Your task to perform on an android device: open app "Calculator" Image 0: 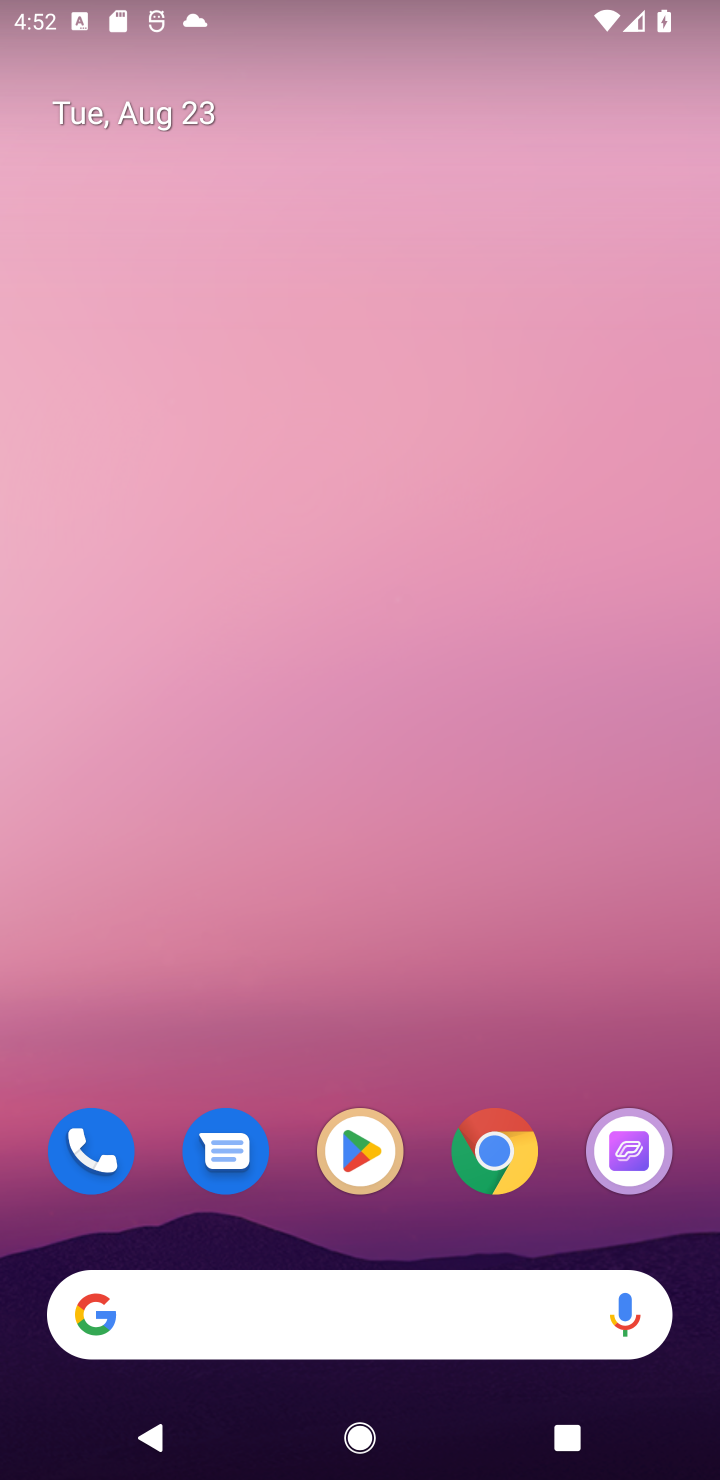
Step 0: press home button
Your task to perform on an android device: open app "Calculator" Image 1: 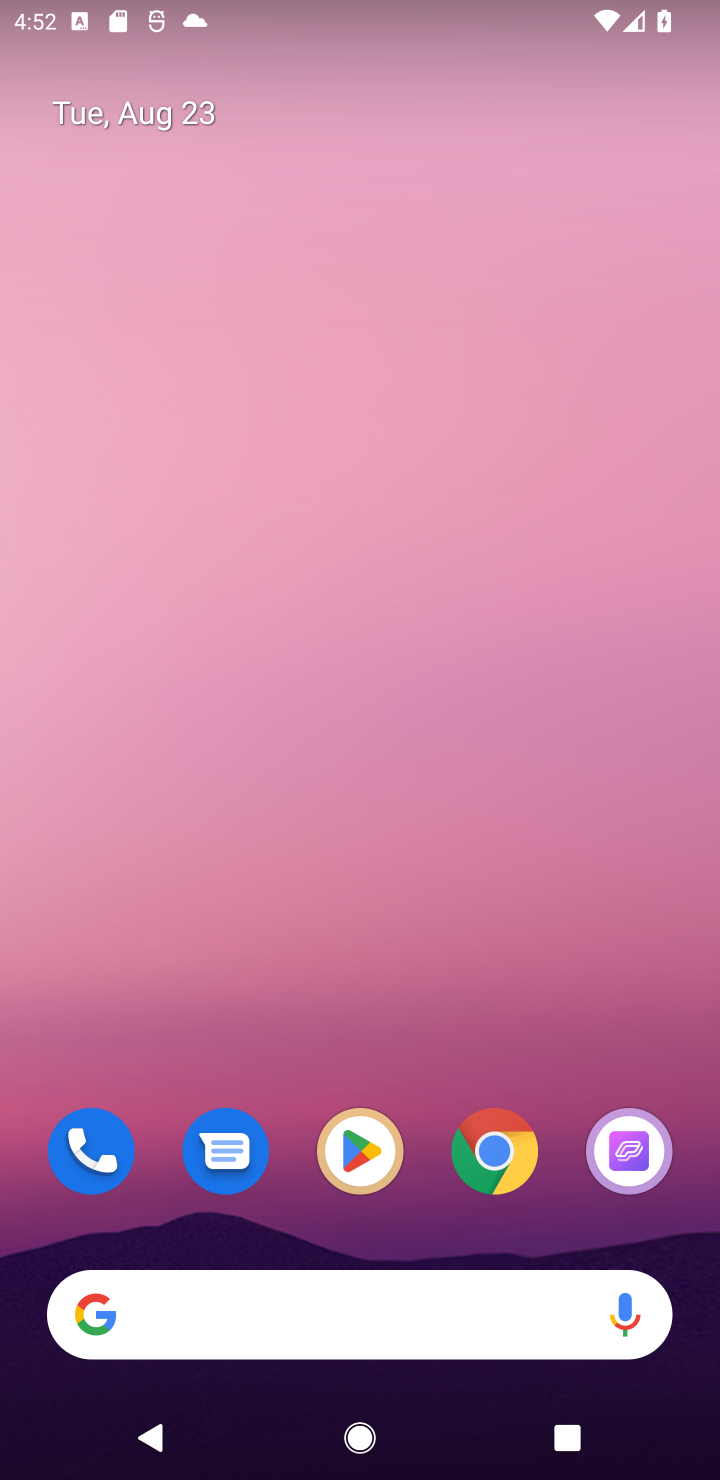
Step 1: click (355, 1153)
Your task to perform on an android device: open app "Calculator" Image 2: 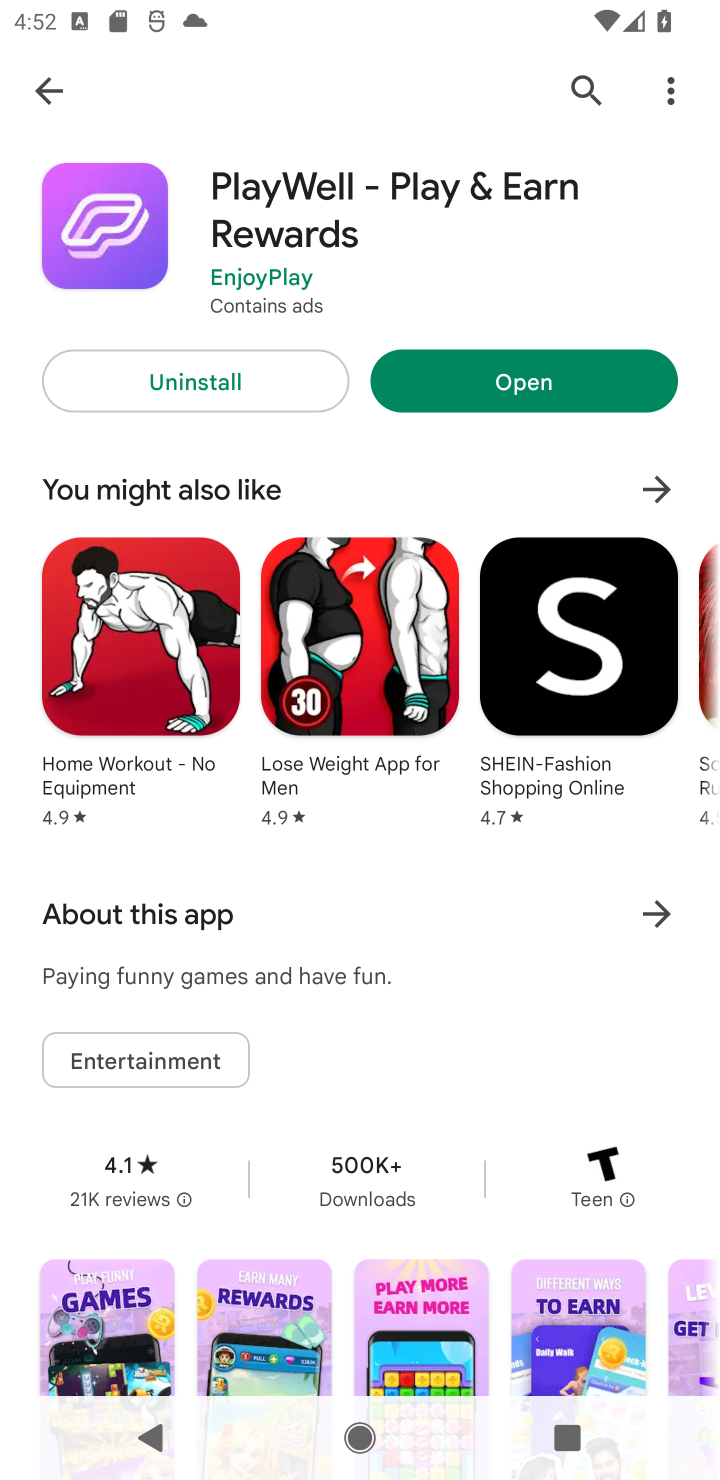
Step 2: click (589, 78)
Your task to perform on an android device: open app "Calculator" Image 3: 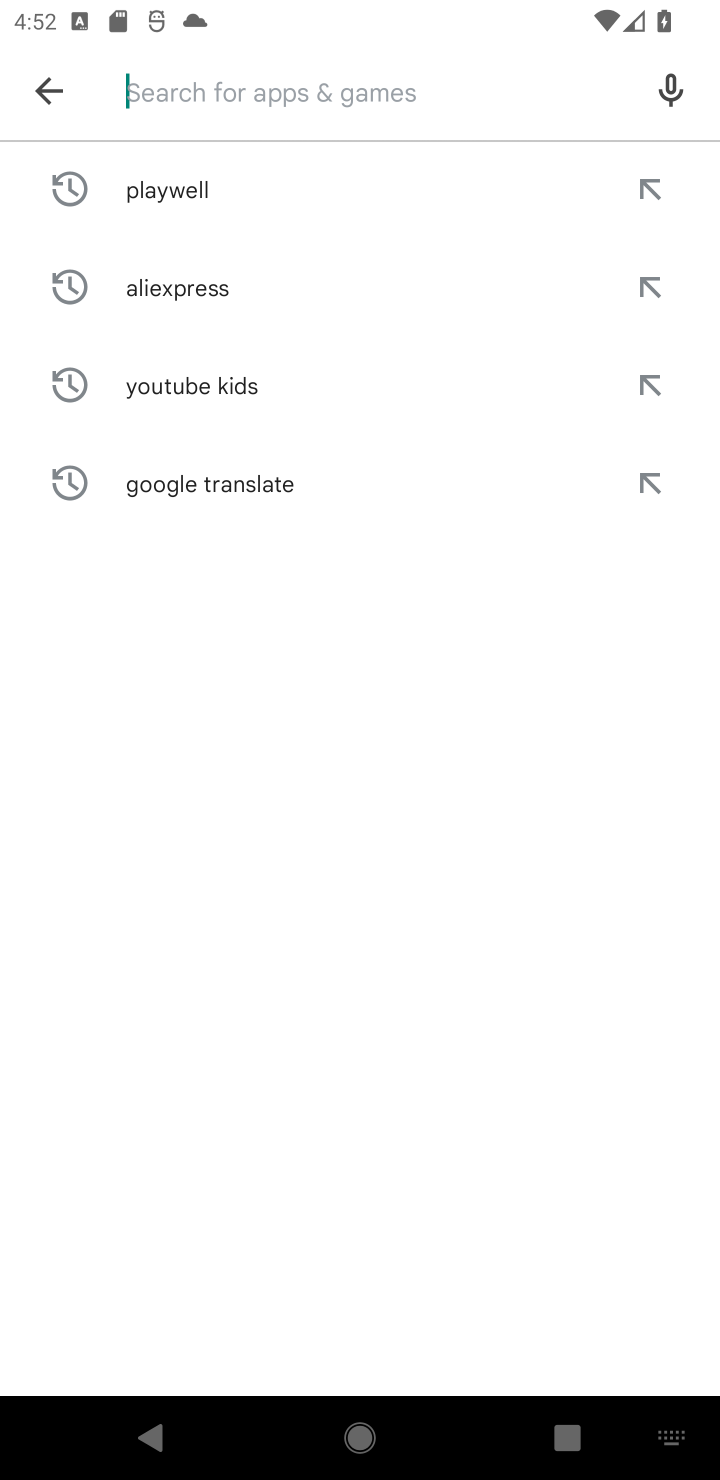
Step 3: type "Calculator"
Your task to perform on an android device: open app "Calculator" Image 4: 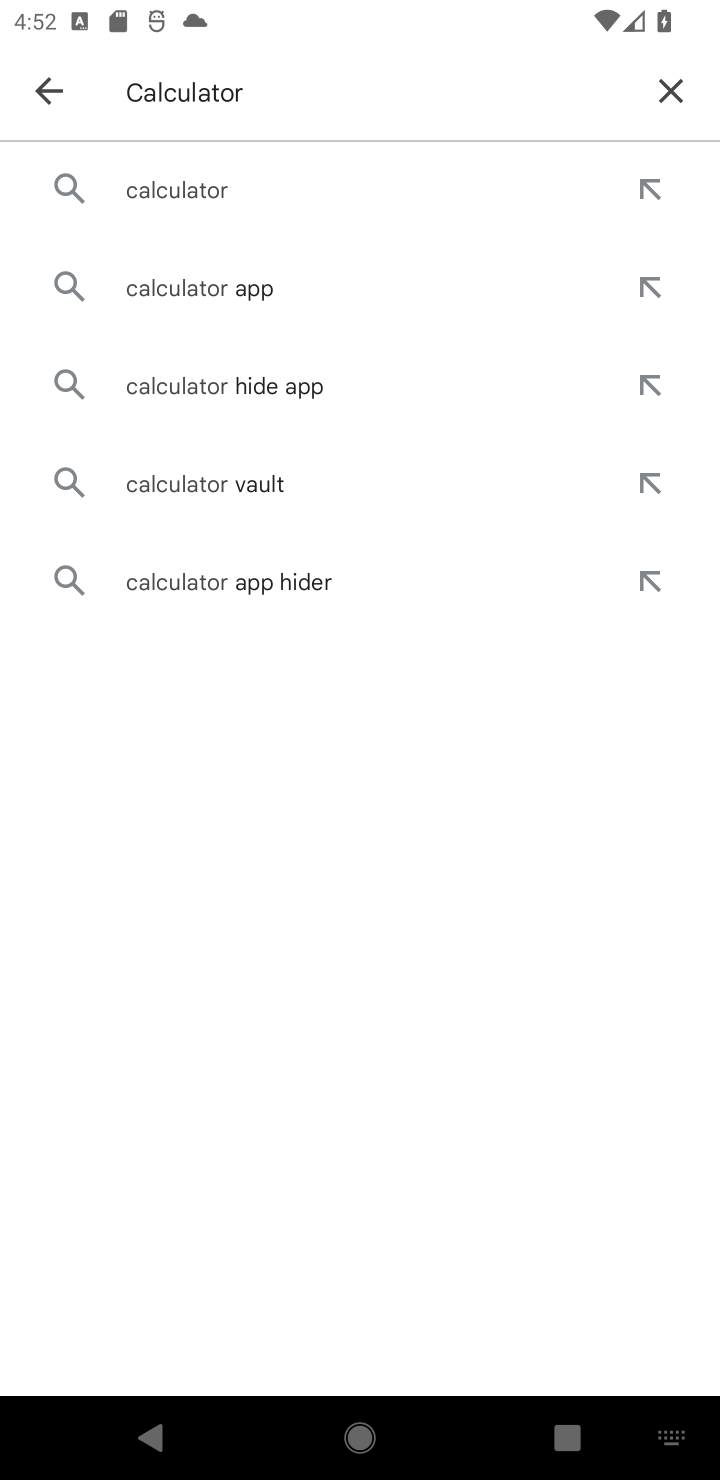
Step 4: click (175, 187)
Your task to perform on an android device: open app "Calculator" Image 5: 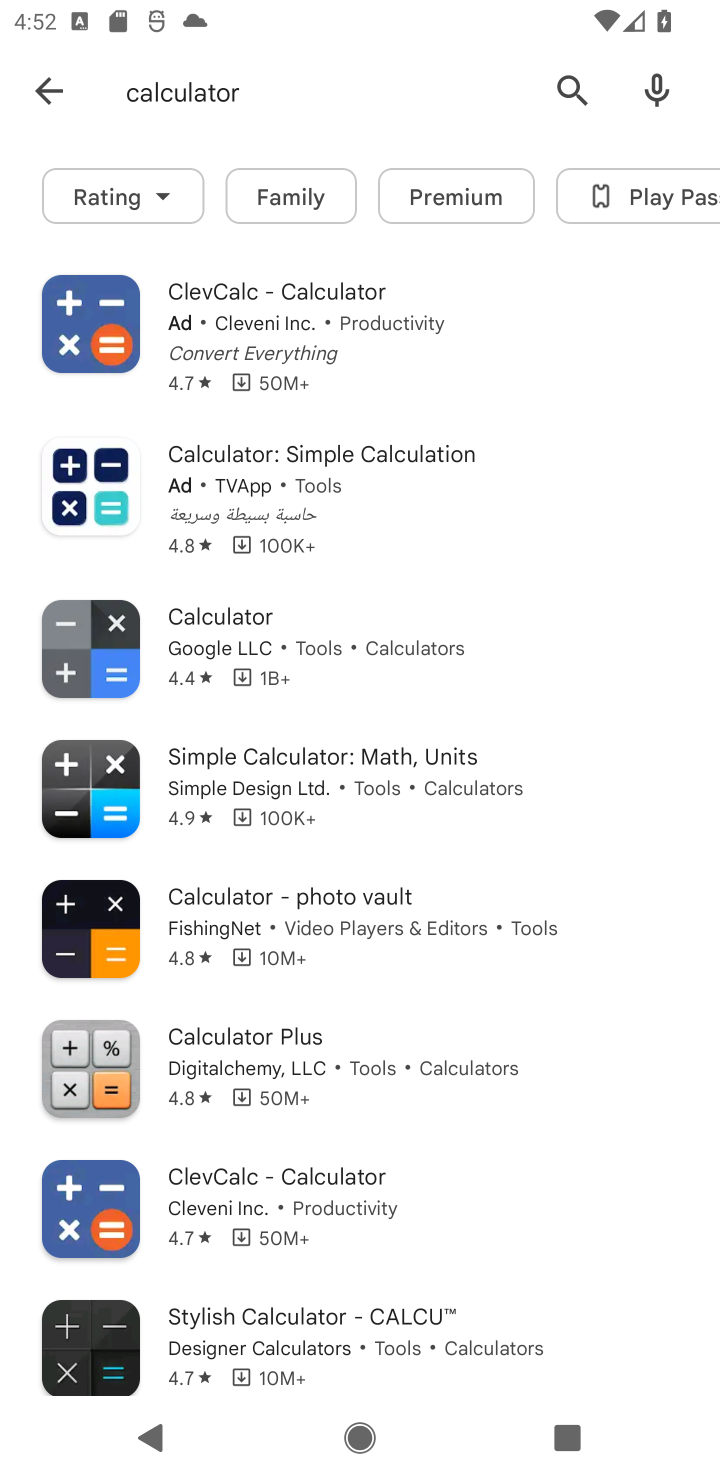
Step 5: click (217, 651)
Your task to perform on an android device: open app "Calculator" Image 6: 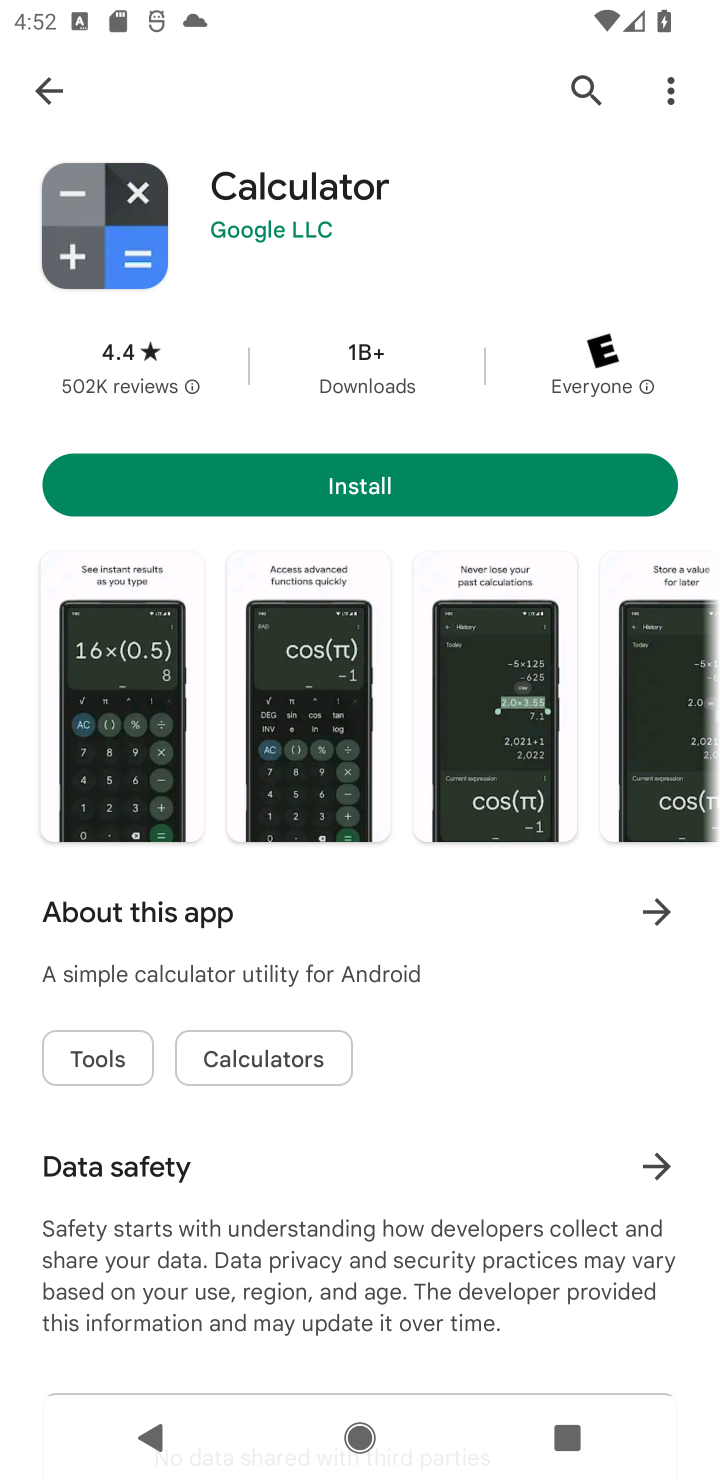
Step 6: task complete